Your task to perform on an android device: toggle notifications settings in the gmail app Image 0: 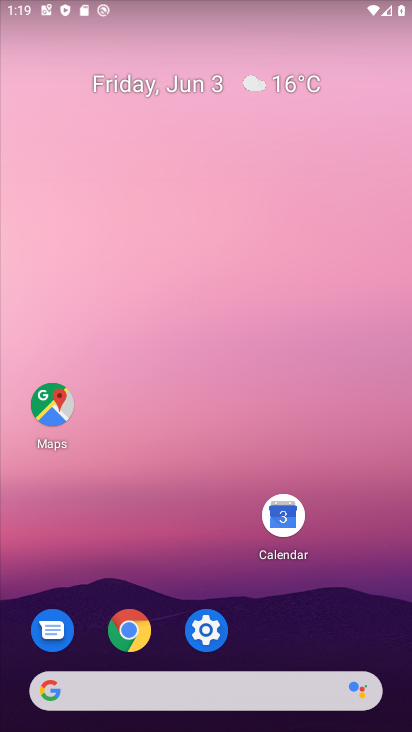
Step 0: drag from (328, 675) to (200, 195)
Your task to perform on an android device: toggle notifications settings in the gmail app Image 1: 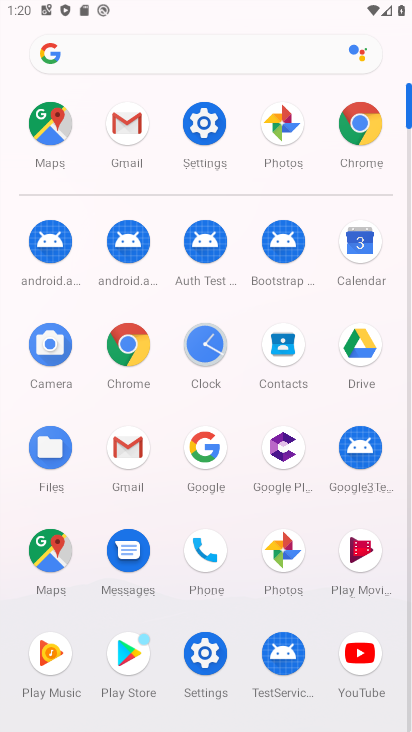
Step 1: click (146, 457)
Your task to perform on an android device: toggle notifications settings in the gmail app Image 2: 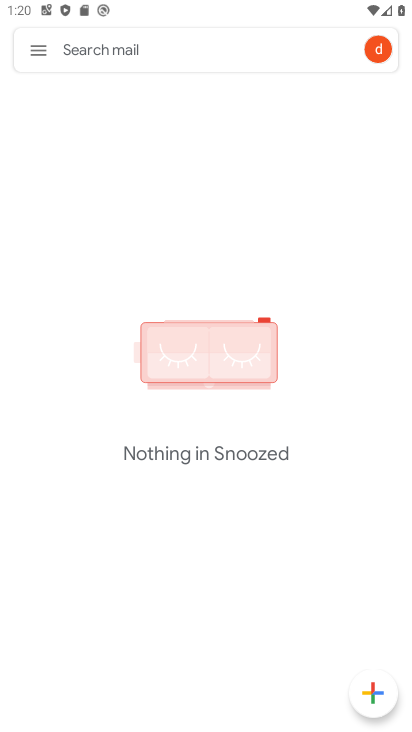
Step 2: click (34, 57)
Your task to perform on an android device: toggle notifications settings in the gmail app Image 3: 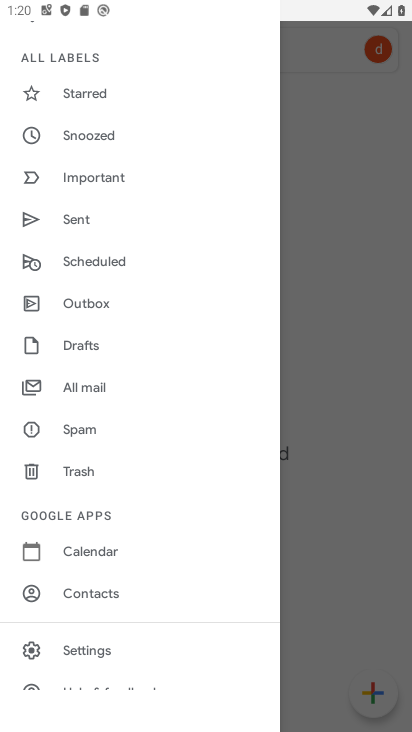
Step 3: click (87, 649)
Your task to perform on an android device: toggle notifications settings in the gmail app Image 4: 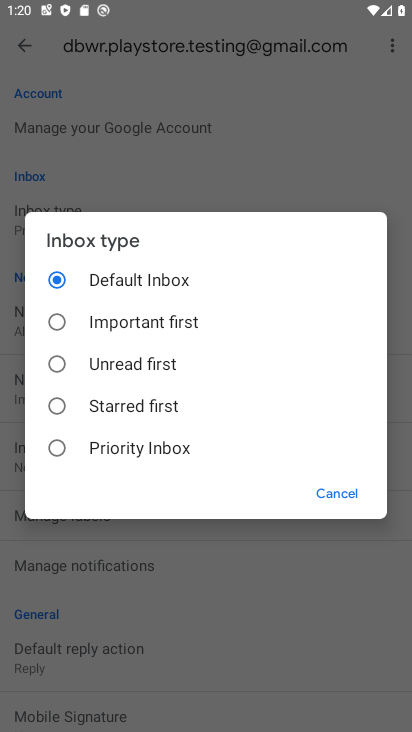
Step 4: click (322, 498)
Your task to perform on an android device: toggle notifications settings in the gmail app Image 5: 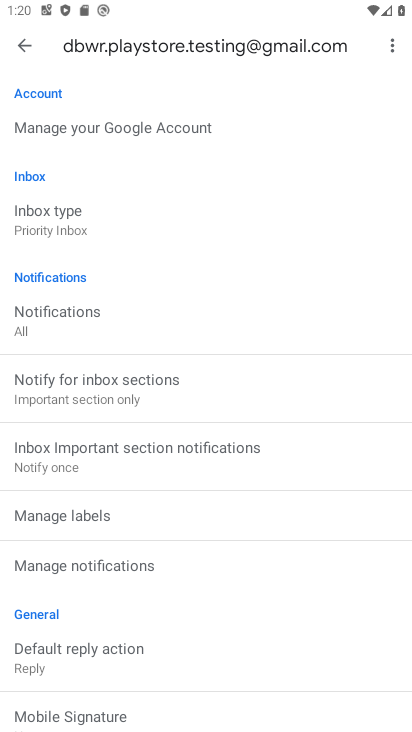
Step 5: click (89, 325)
Your task to perform on an android device: toggle notifications settings in the gmail app Image 6: 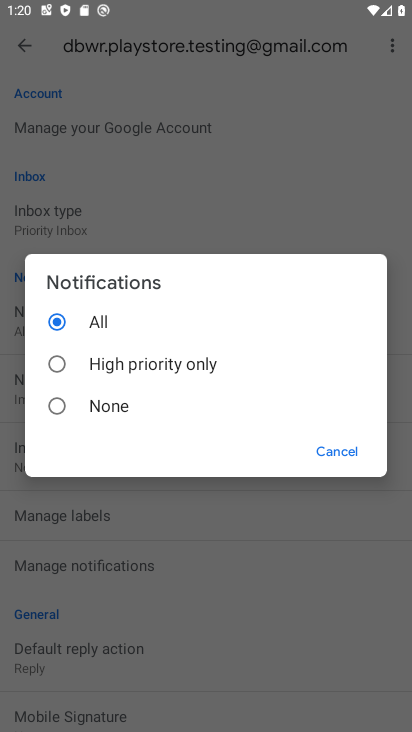
Step 6: task complete